Your task to perform on an android device: change text size in settings app Image 0: 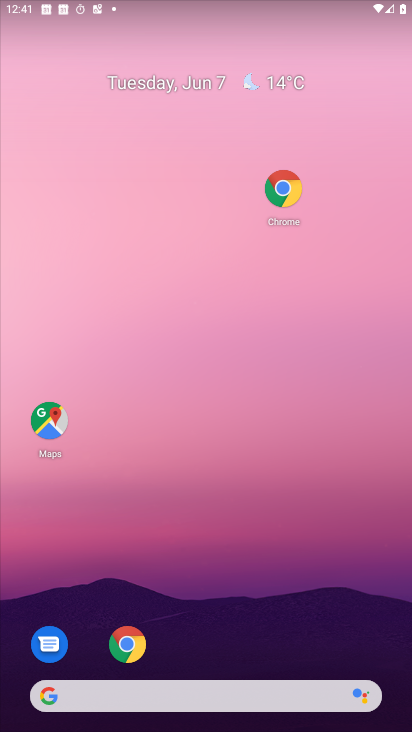
Step 0: drag from (306, 544) to (310, 121)
Your task to perform on an android device: change text size in settings app Image 1: 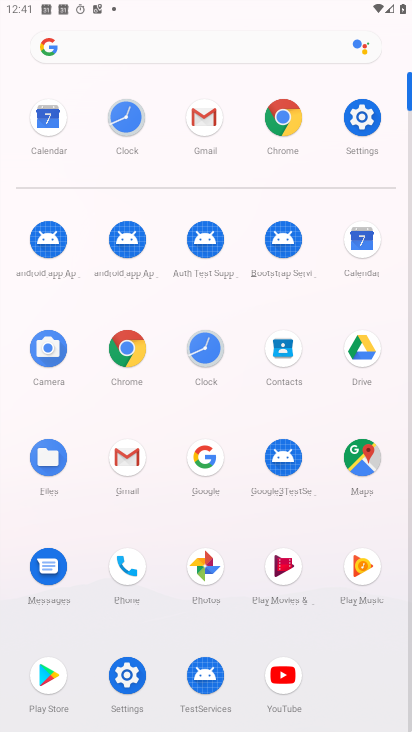
Step 1: click (363, 141)
Your task to perform on an android device: change text size in settings app Image 2: 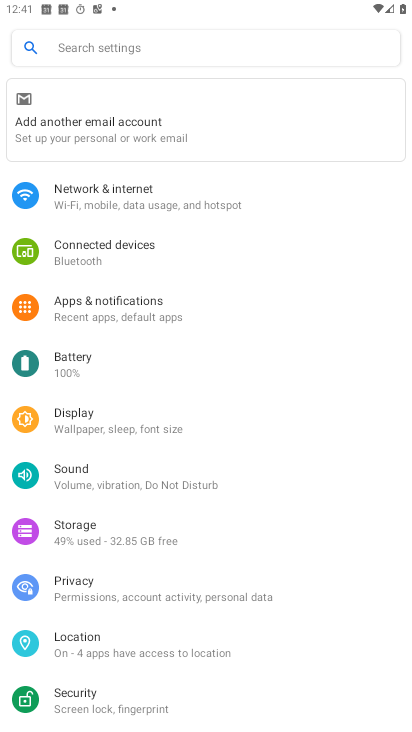
Step 2: click (139, 433)
Your task to perform on an android device: change text size in settings app Image 3: 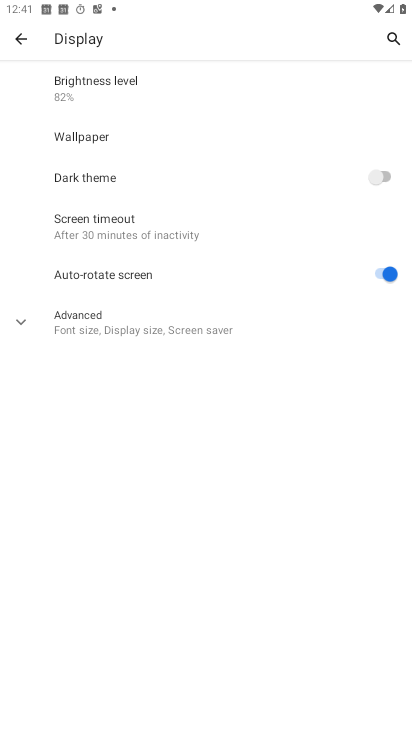
Step 3: click (126, 313)
Your task to perform on an android device: change text size in settings app Image 4: 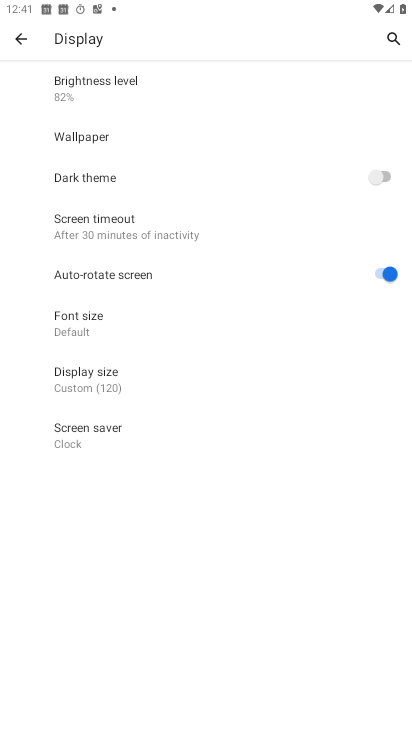
Step 4: click (85, 326)
Your task to perform on an android device: change text size in settings app Image 5: 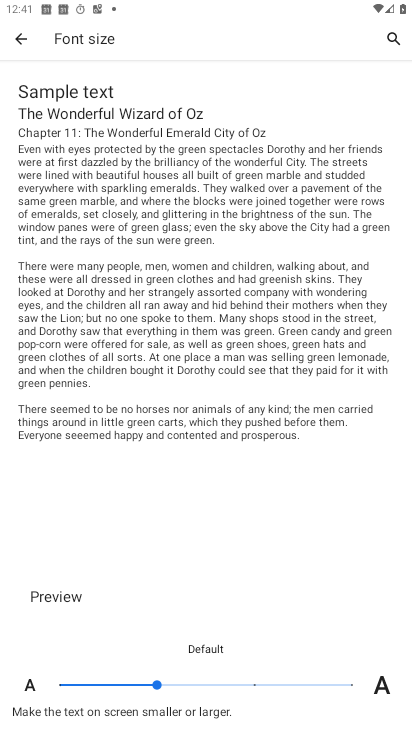
Step 5: click (96, 680)
Your task to perform on an android device: change text size in settings app Image 6: 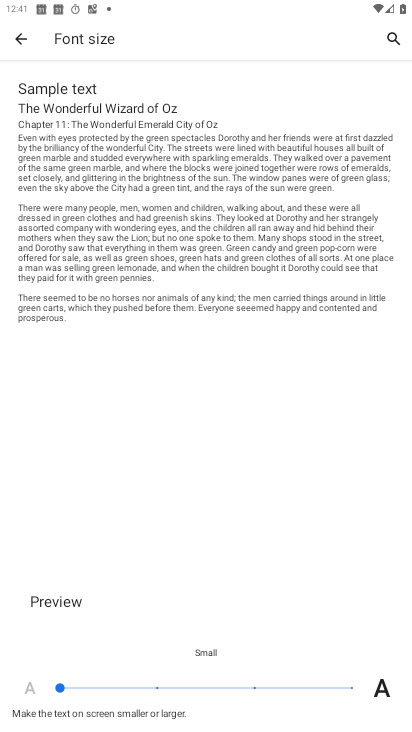
Step 6: task complete